Your task to perform on an android device: Search for vegetarian restaurants on Maps Image 0: 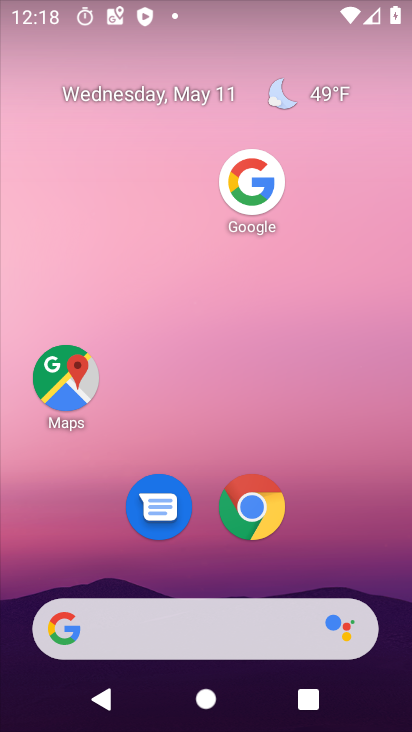
Step 0: click (62, 385)
Your task to perform on an android device: Search for vegetarian restaurants on Maps Image 1: 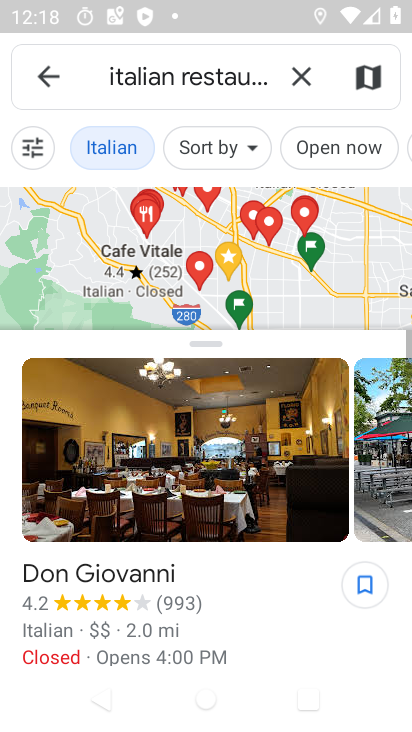
Step 1: click (272, 76)
Your task to perform on an android device: Search for vegetarian restaurants on Maps Image 2: 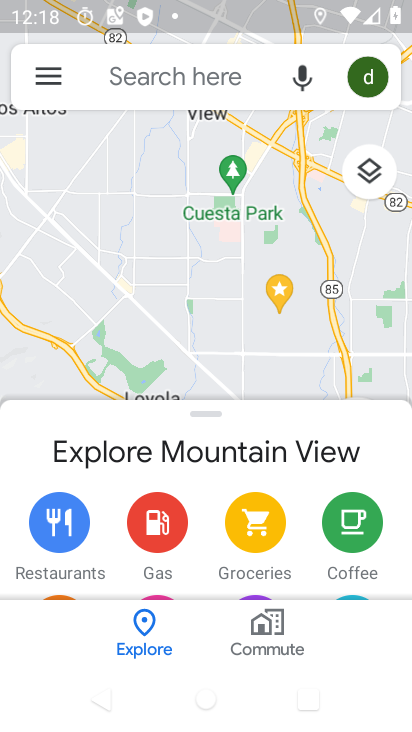
Step 2: click (134, 83)
Your task to perform on an android device: Search for vegetarian restaurants on Maps Image 3: 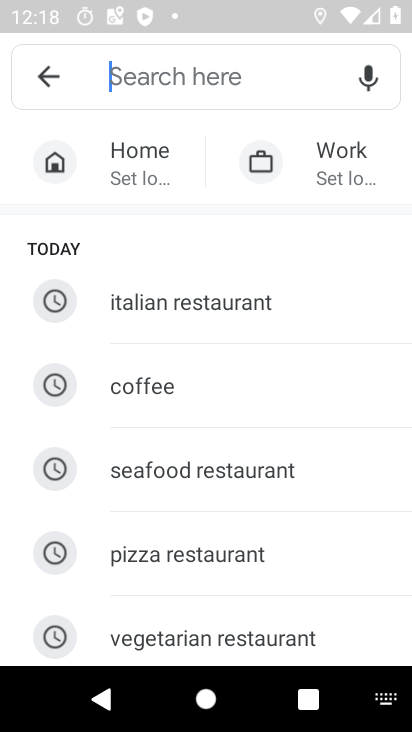
Step 3: click (159, 633)
Your task to perform on an android device: Search for vegetarian restaurants on Maps Image 4: 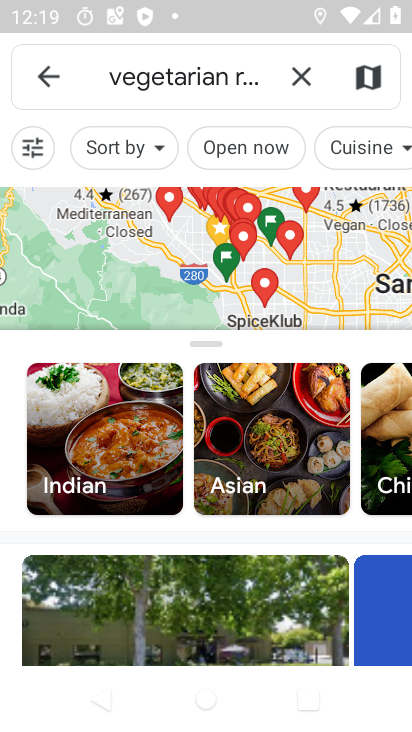
Step 4: task complete